Your task to perform on an android device: Open settings Image 0: 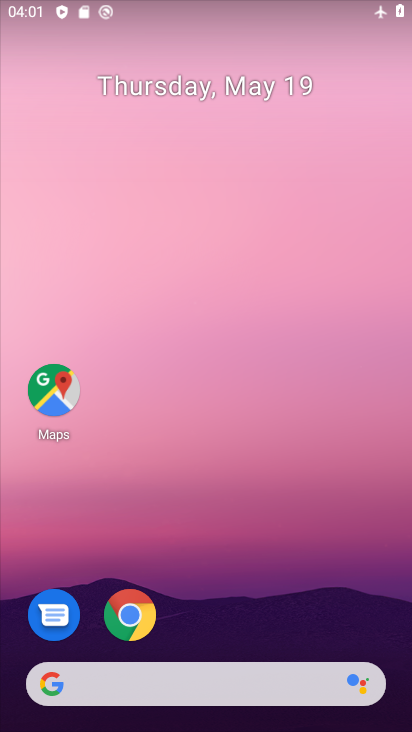
Step 0: drag from (251, 656) to (285, 8)
Your task to perform on an android device: Open settings Image 1: 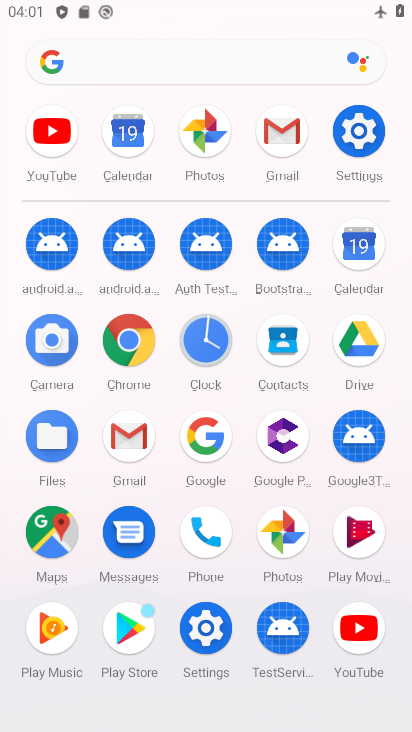
Step 1: click (368, 137)
Your task to perform on an android device: Open settings Image 2: 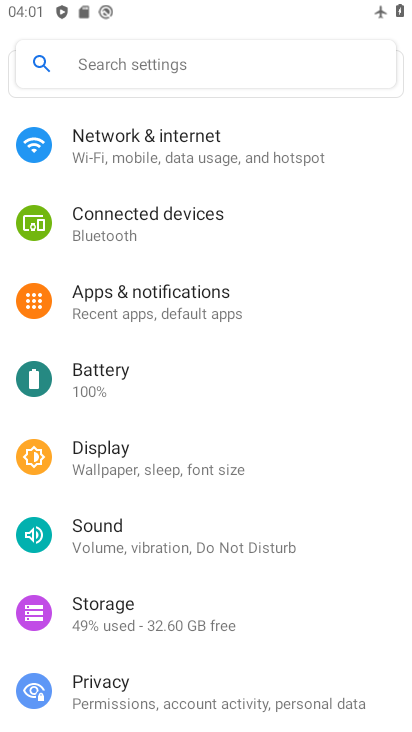
Step 2: task complete